Your task to perform on an android device: Open Wikipedia Image 0: 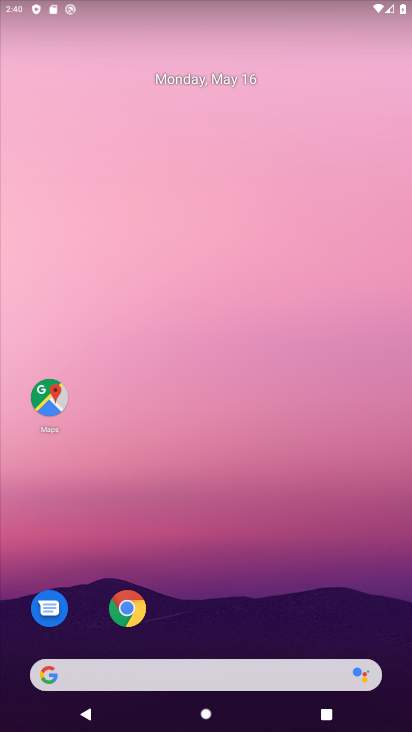
Step 0: click (126, 609)
Your task to perform on an android device: Open Wikipedia Image 1: 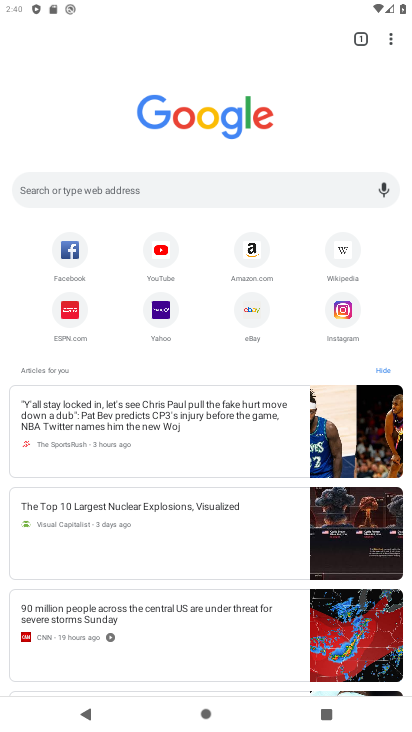
Step 1: click (393, 37)
Your task to perform on an android device: Open Wikipedia Image 2: 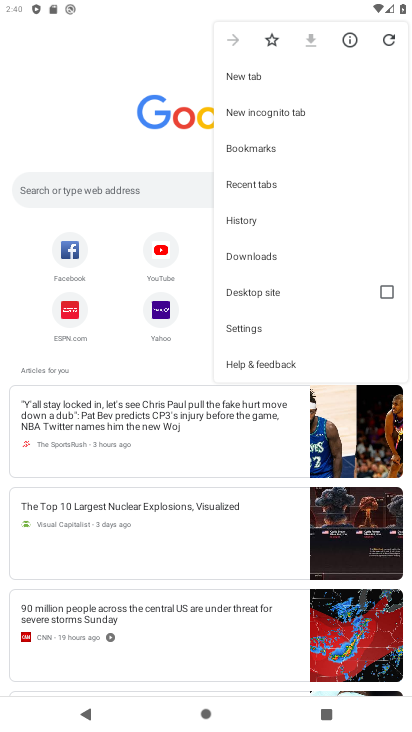
Step 2: click (152, 181)
Your task to perform on an android device: Open Wikipedia Image 3: 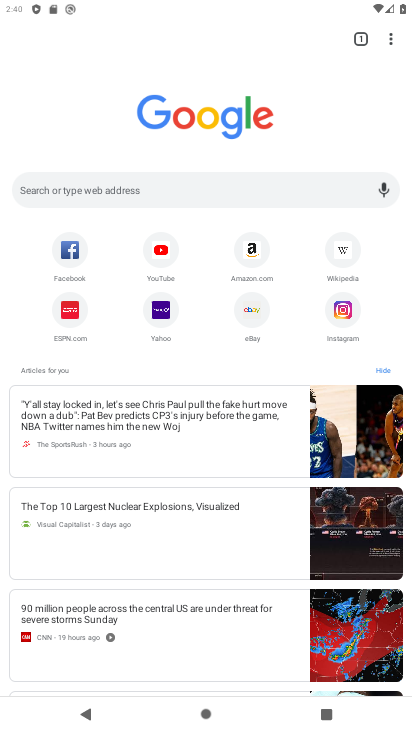
Step 3: click (341, 250)
Your task to perform on an android device: Open Wikipedia Image 4: 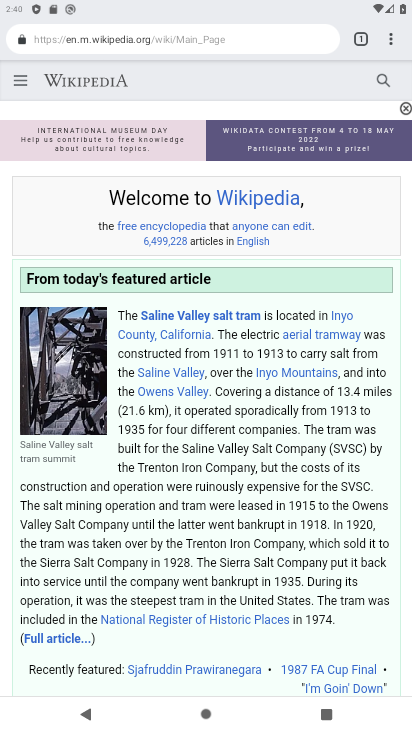
Step 4: task complete